Your task to perform on an android device: Go to Yahoo.com Image 0: 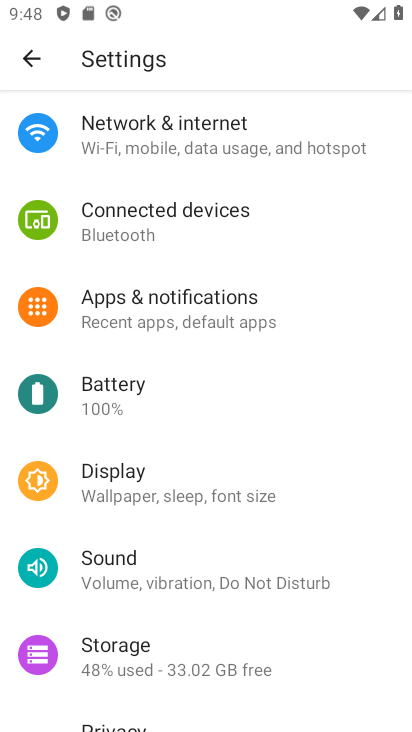
Step 0: press home button
Your task to perform on an android device: Go to Yahoo.com Image 1: 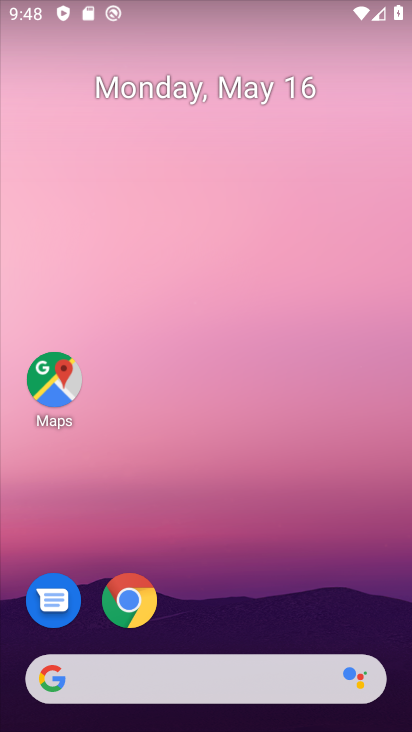
Step 1: drag from (261, 585) to (272, 174)
Your task to perform on an android device: Go to Yahoo.com Image 2: 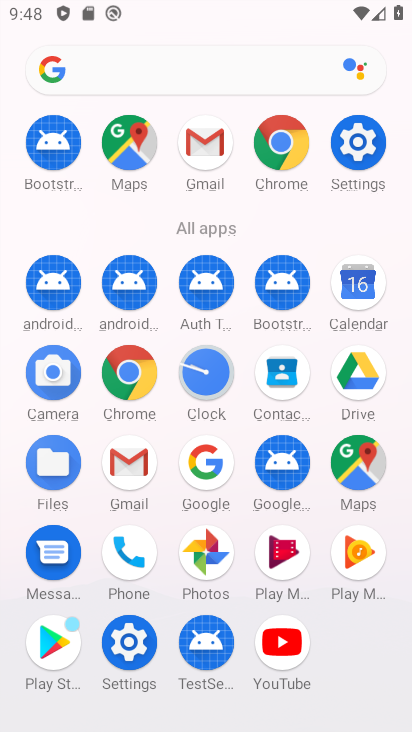
Step 2: click (145, 371)
Your task to perform on an android device: Go to Yahoo.com Image 3: 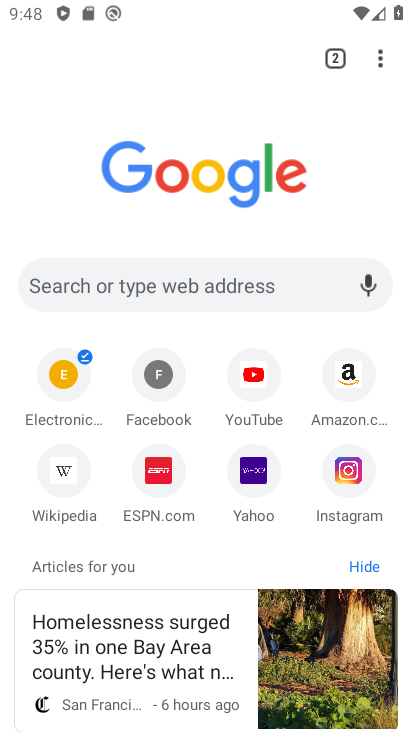
Step 3: click (186, 282)
Your task to perform on an android device: Go to Yahoo.com Image 4: 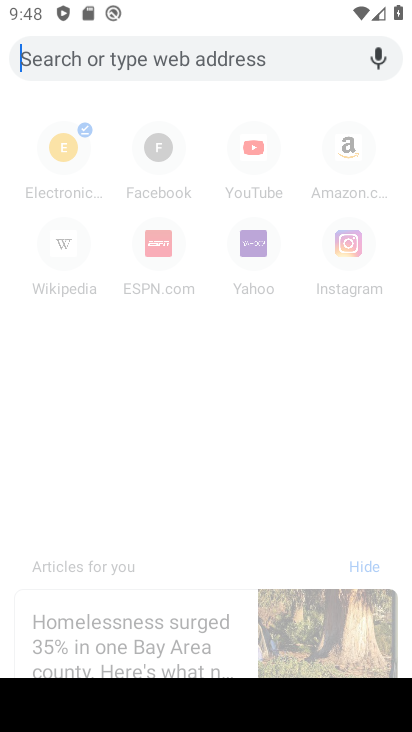
Step 4: type "yahoo.com"
Your task to perform on an android device: Go to Yahoo.com Image 5: 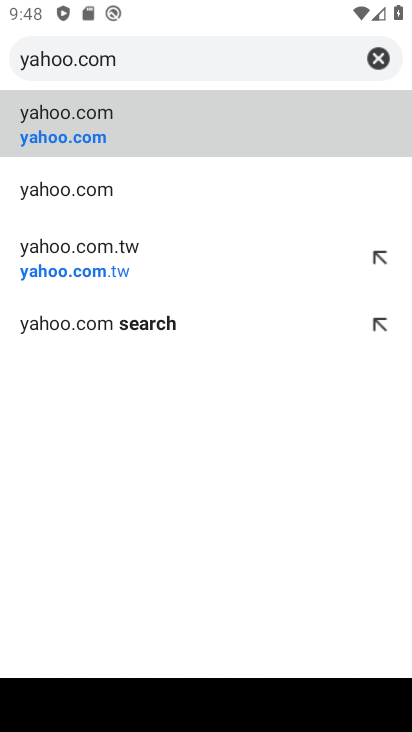
Step 5: click (108, 134)
Your task to perform on an android device: Go to Yahoo.com Image 6: 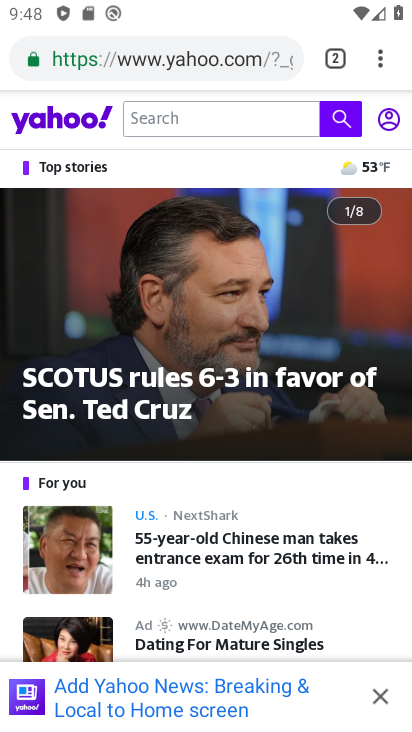
Step 6: task complete